Your task to perform on an android device: Open Youtube and go to "Your channel" Image 0: 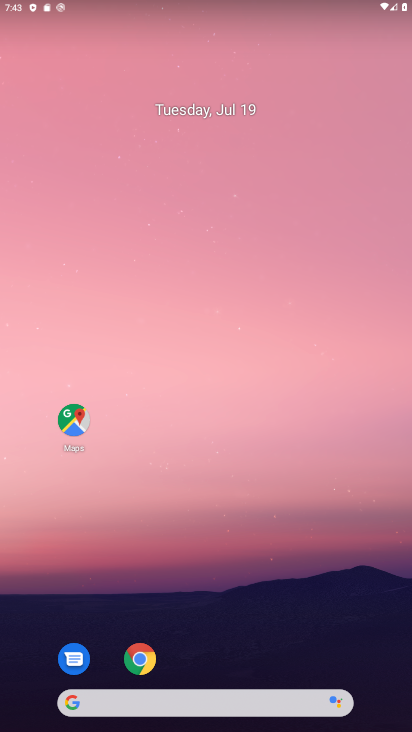
Step 0: drag from (209, 680) to (254, 121)
Your task to perform on an android device: Open Youtube and go to "Your channel" Image 1: 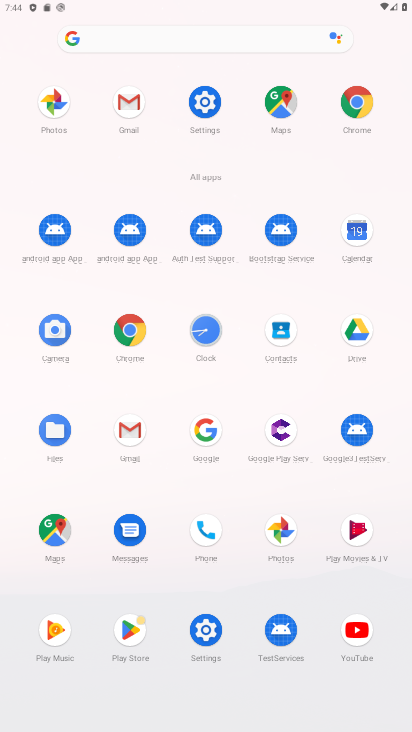
Step 1: click (363, 628)
Your task to perform on an android device: Open Youtube and go to "Your channel" Image 2: 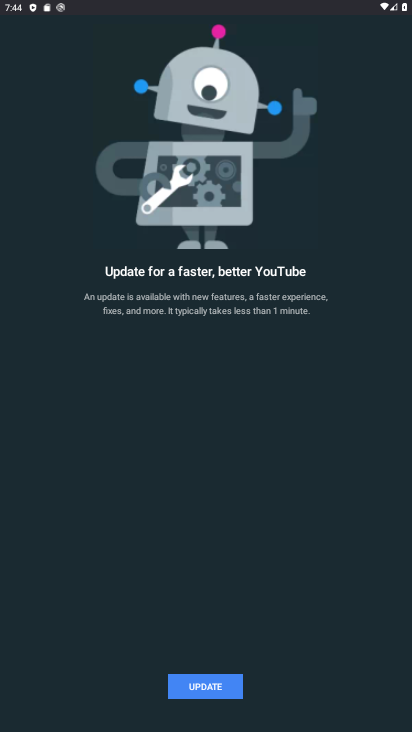
Step 2: click (206, 683)
Your task to perform on an android device: Open Youtube and go to "Your channel" Image 3: 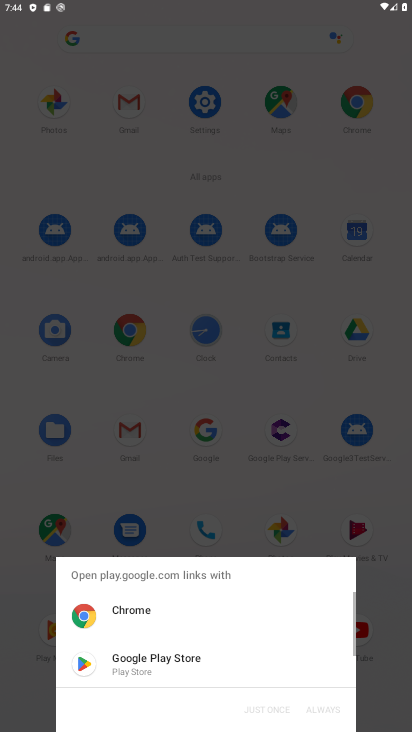
Step 3: click (168, 662)
Your task to perform on an android device: Open Youtube and go to "Your channel" Image 4: 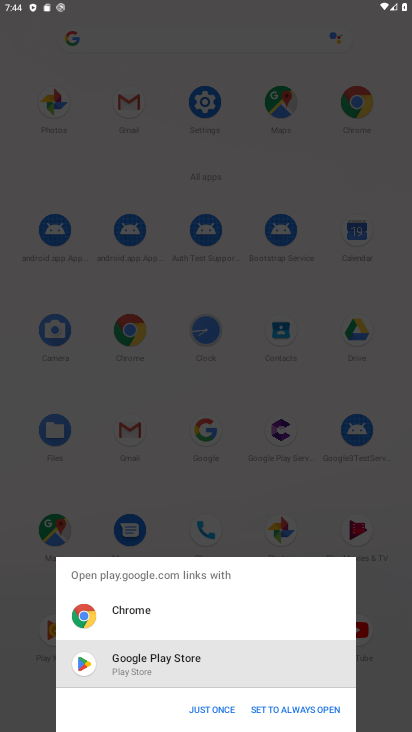
Step 4: click (198, 711)
Your task to perform on an android device: Open Youtube and go to "Your channel" Image 5: 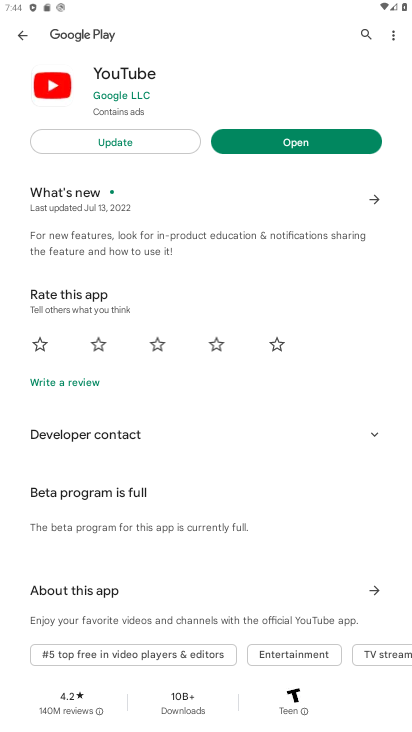
Step 5: click (117, 139)
Your task to perform on an android device: Open Youtube and go to "Your channel" Image 6: 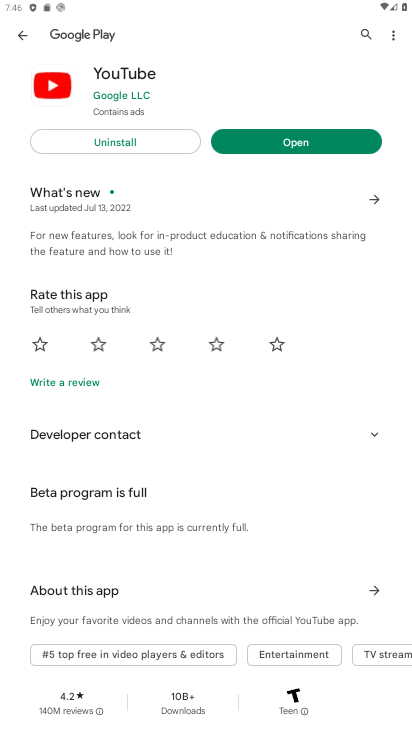
Step 6: click (285, 143)
Your task to perform on an android device: Open Youtube and go to "Your channel" Image 7: 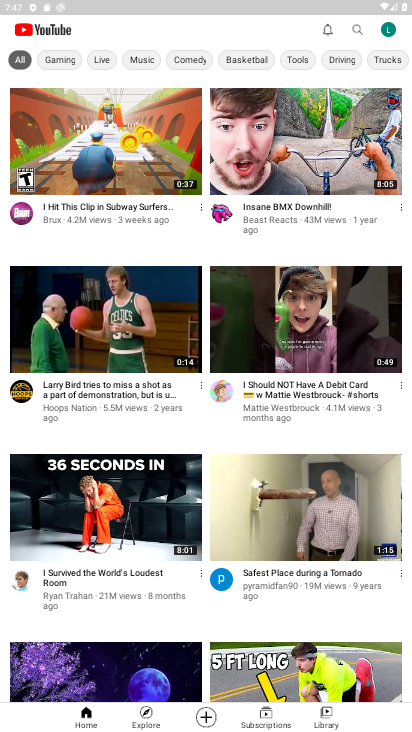
Step 7: click (381, 25)
Your task to perform on an android device: Open Youtube and go to "Your channel" Image 8: 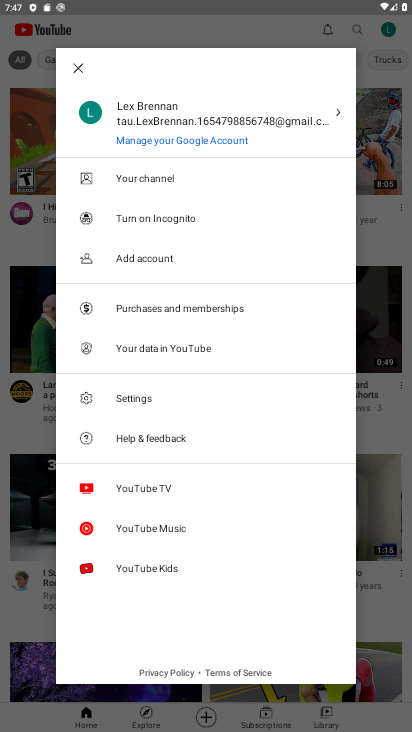
Step 8: click (149, 183)
Your task to perform on an android device: Open Youtube and go to "Your channel" Image 9: 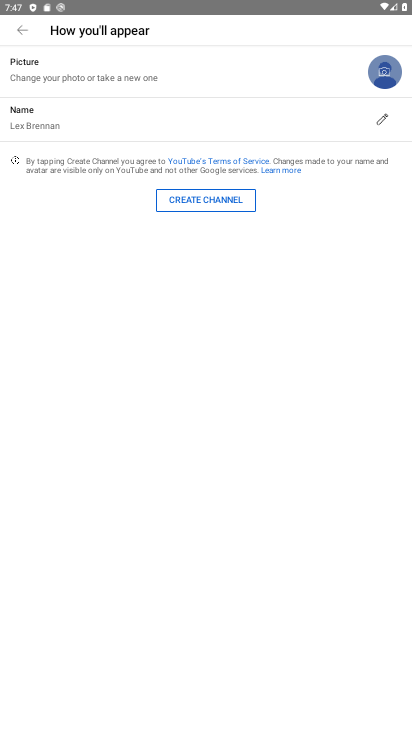
Step 9: task complete